Your task to perform on an android device: Open calendar and show me the second week of next month Image 0: 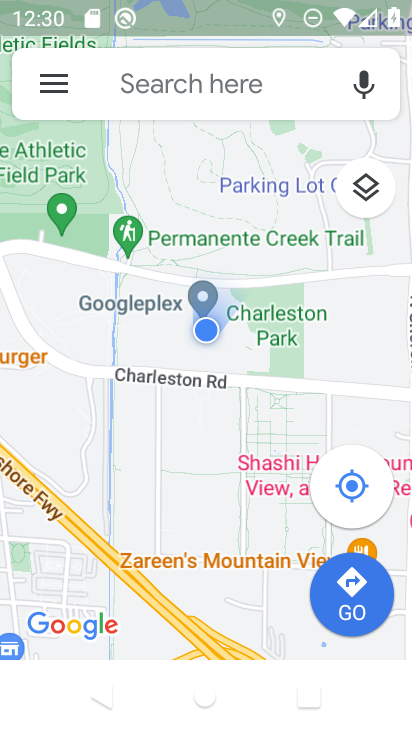
Step 0: press back button
Your task to perform on an android device: Open calendar and show me the second week of next month Image 1: 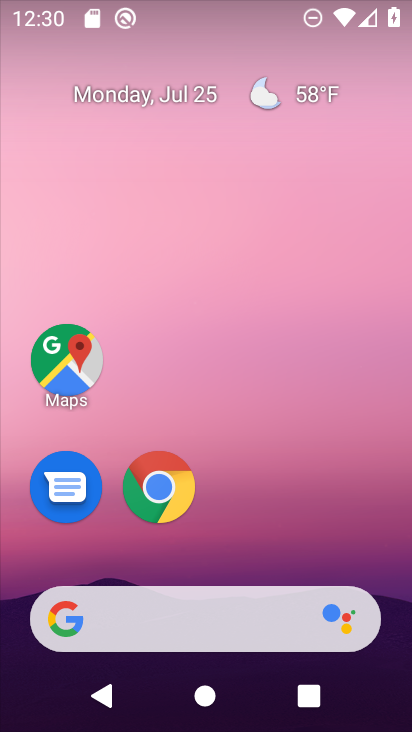
Step 1: drag from (263, 495) to (304, 70)
Your task to perform on an android device: Open calendar and show me the second week of next month Image 2: 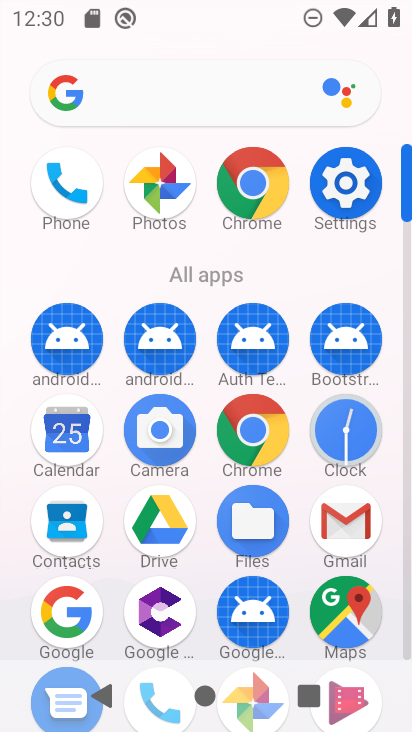
Step 2: click (75, 430)
Your task to perform on an android device: Open calendar and show me the second week of next month Image 3: 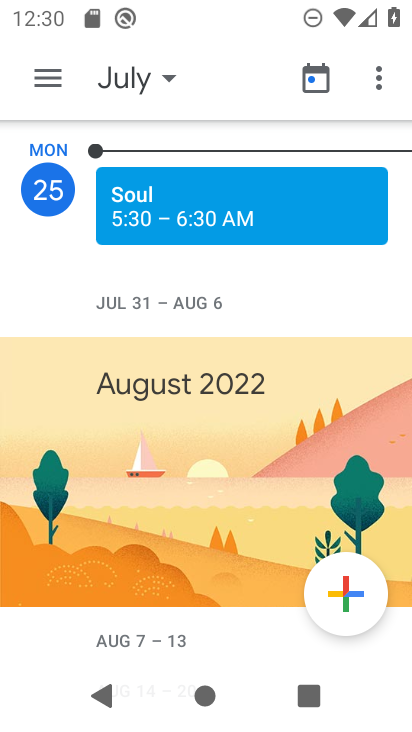
Step 3: click (153, 80)
Your task to perform on an android device: Open calendar and show me the second week of next month Image 4: 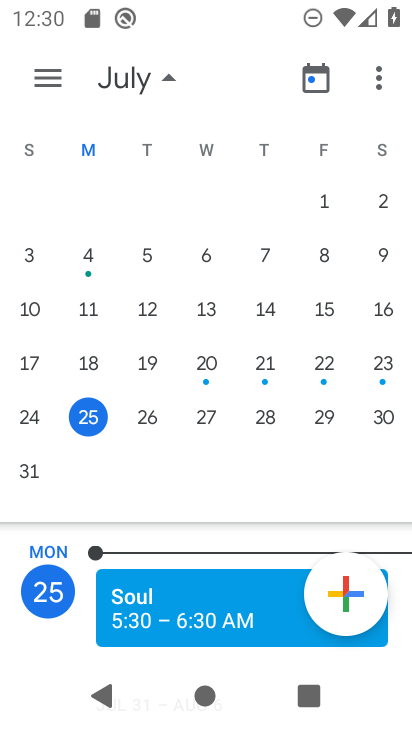
Step 4: drag from (383, 353) to (21, 345)
Your task to perform on an android device: Open calendar and show me the second week of next month Image 5: 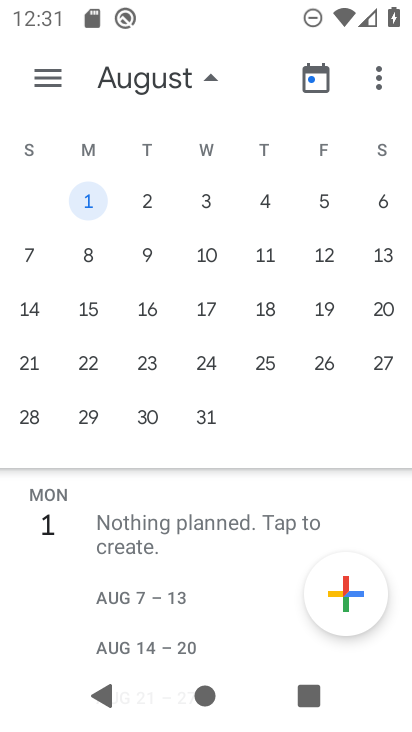
Step 5: click (85, 259)
Your task to perform on an android device: Open calendar and show me the second week of next month Image 6: 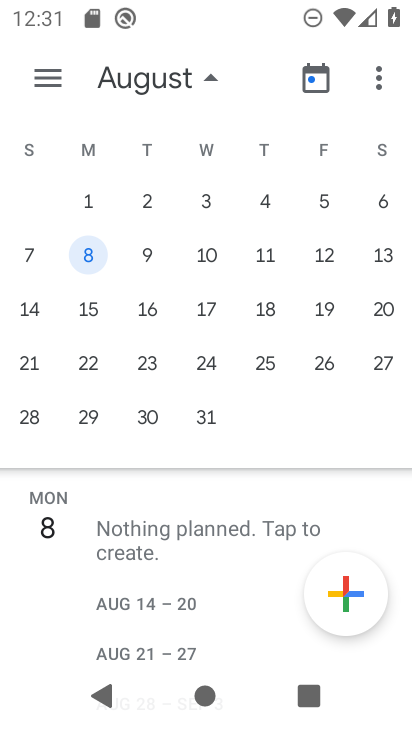
Step 6: task complete